Your task to perform on an android device: What's the weather? Image 0: 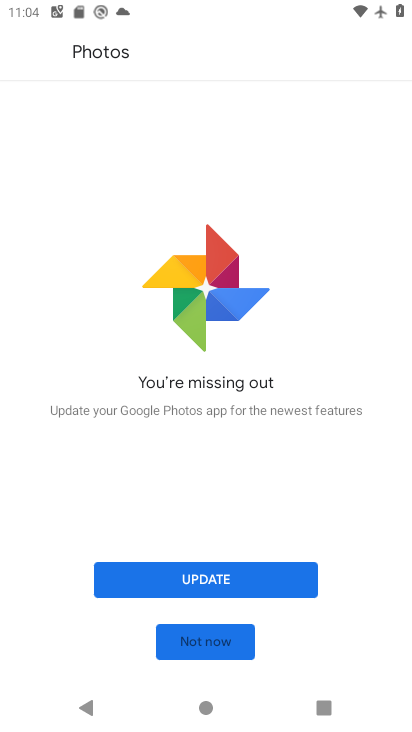
Step 0: press home button
Your task to perform on an android device: What's the weather? Image 1: 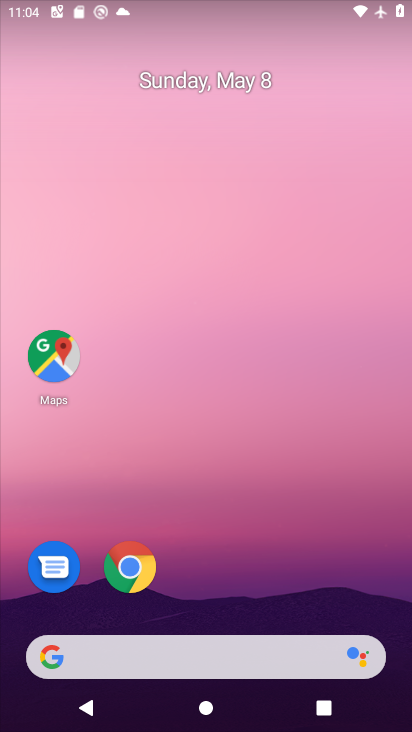
Step 1: drag from (300, 581) to (290, 291)
Your task to perform on an android device: What's the weather? Image 2: 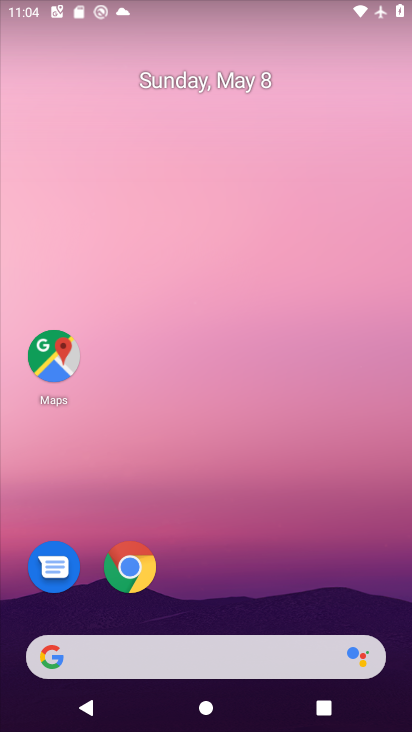
Step 2: drag from (288, 584) to (189, 137)
Your task to perform on an android device: What's the weather? Image 3: 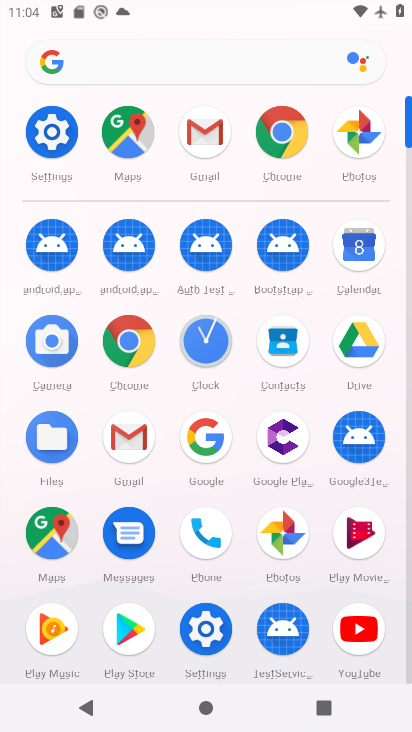
Step 3: click (218, 463)
Your task to perform on an android device: What's the weather? Image 4: 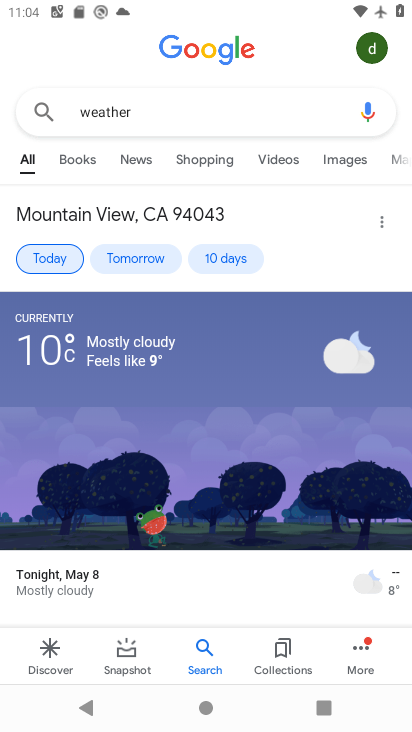
Step 4: task complete